Your task to perform on an android device: Turn on the flashlight Image 0: 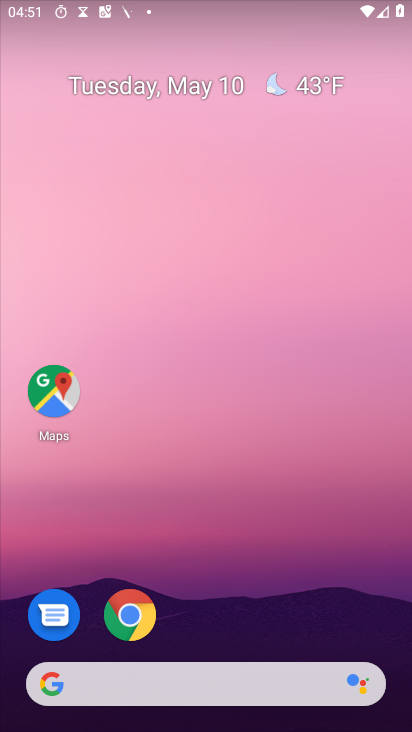
Step 0: drag from (279, 686) to (249, 78)
Your task to perform on an android device: Turn on the flashlight Image 1: 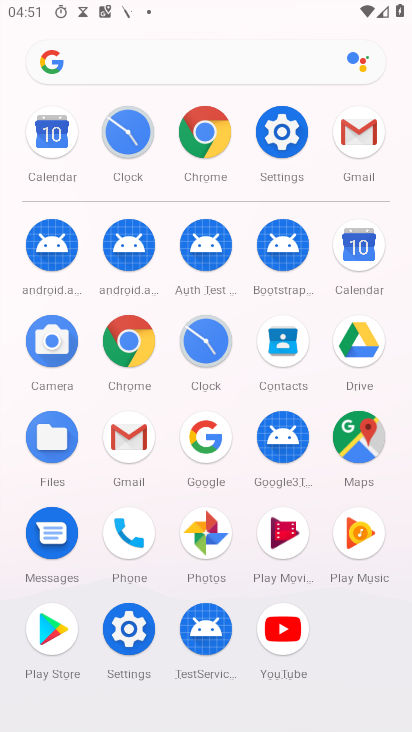
Step 1: task complete